Your task to perform on an android device: Go to calendar. Show me events next week Image 0: 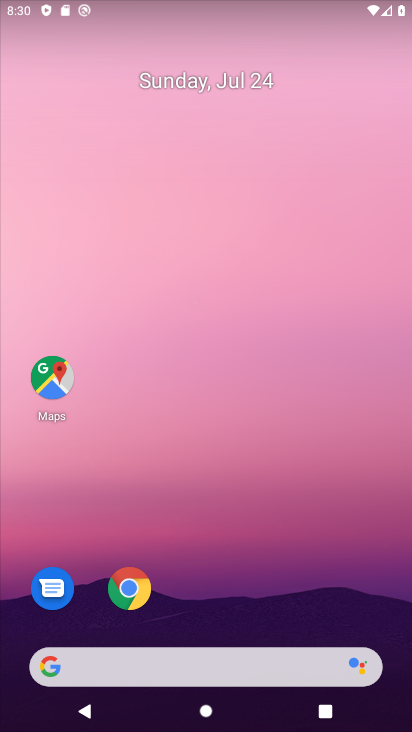
Step 0: drag from (230, 625) to (309, 4)
Your task to perform on an android device: Go to calendar. Show me events next week Image 1: 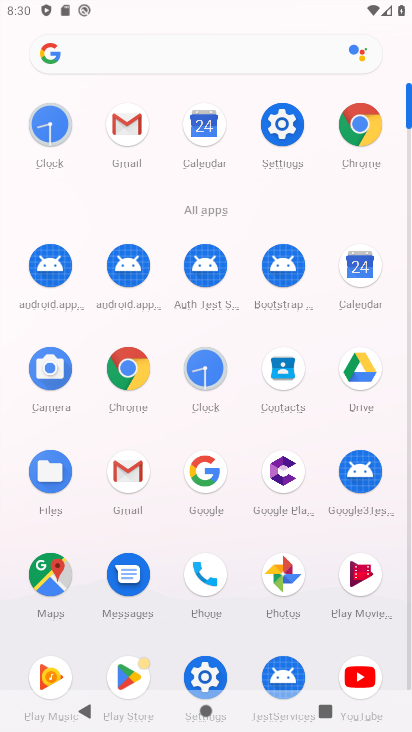
Step 1: click (358, 265)
Your task to perform on an android device: Go to calendar. Show me events next week Image 2: 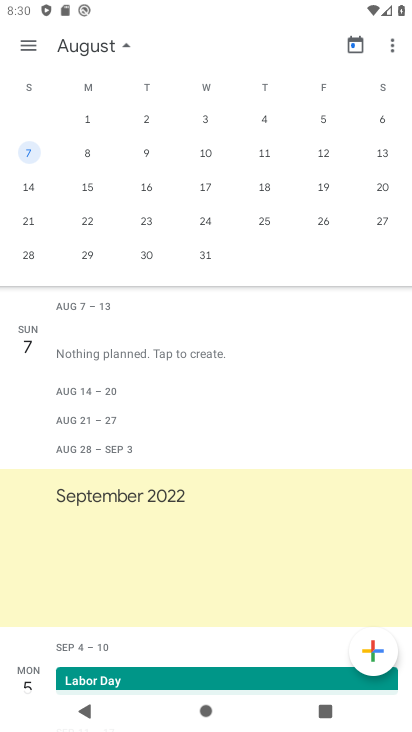
Step 2: drag from (49, 179) to (401, 148)
Your task to perform on an android device: Go to calendar. Show me events next week Image 3: 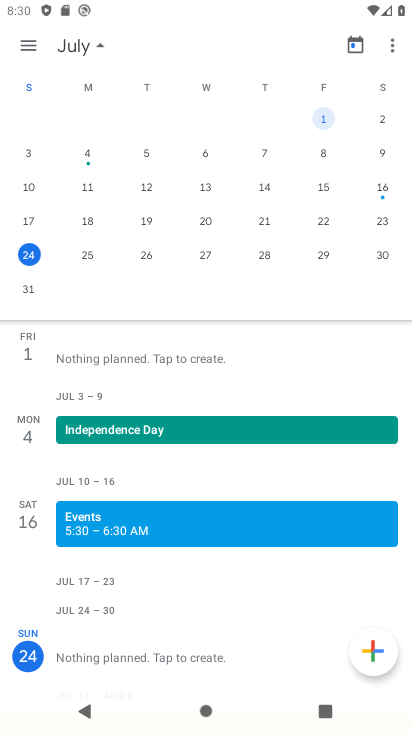
Step 3: click (31, 290)
Your task to perform on an android device: Go to calendar. Show me events next week Image 4: 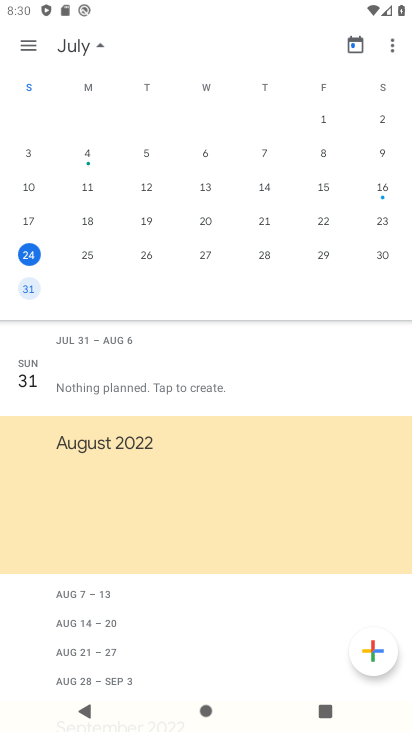
Step 4: task complete